Your task to perform on an android device: What is the news today? Image 0: 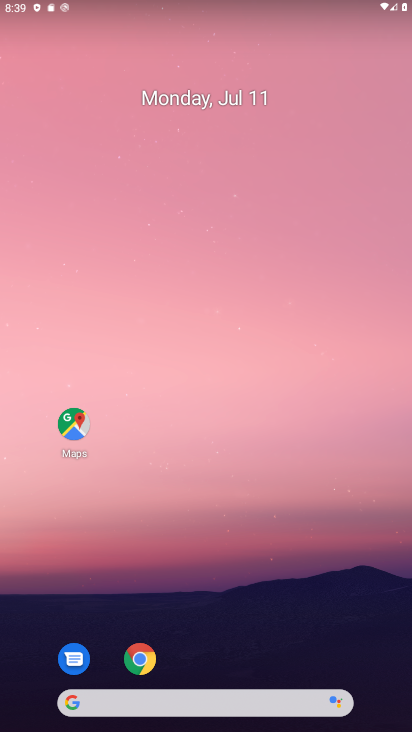
Step 0: drag from (258, 727) to (210, 730)
Your task to perform on an android device: What is the news today? Image 1: 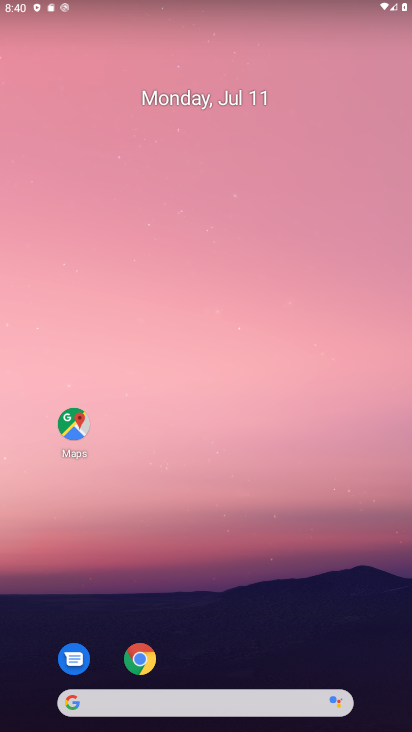
Step 1: task complete